Your task to perform on an android device: set an alarm Image 0: 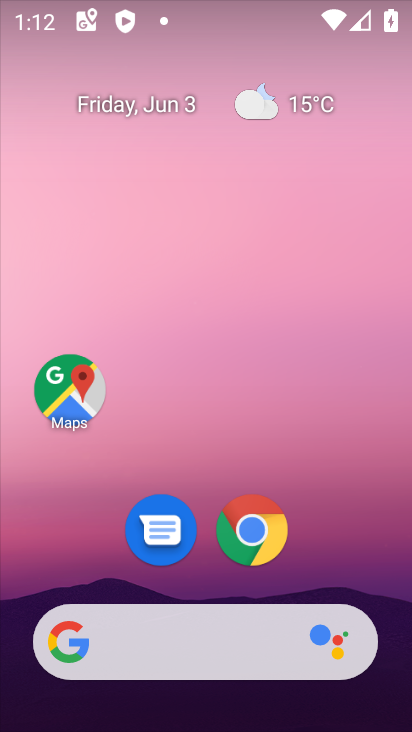
Step 0: drag from (354, 520) to (345, 81)
Your task to perform on an android device: set an alarm Image 1: 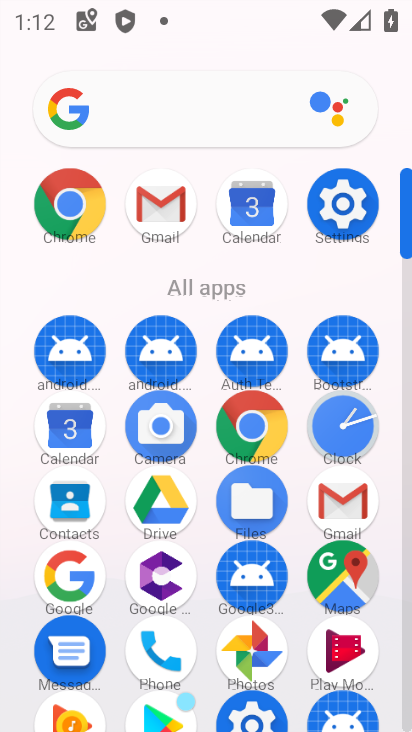
Step 1: click (348, 427)
Your task to perform on an android device: set an alarm Image 2: 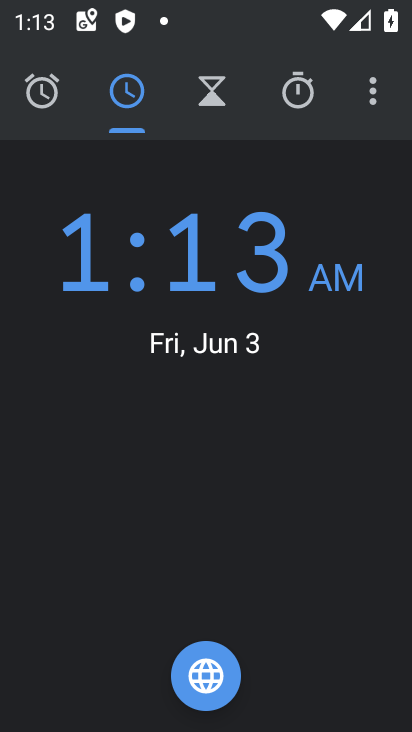
Step 2: click (42, 96)
Your task to perform on an android device: set an alarm Image 3: 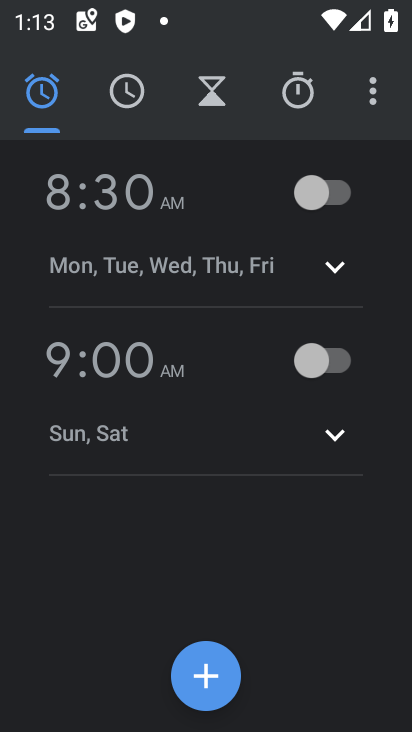
Step 3: click (318, 193)
Your task to perform on an android device: set an alarm Image 4: 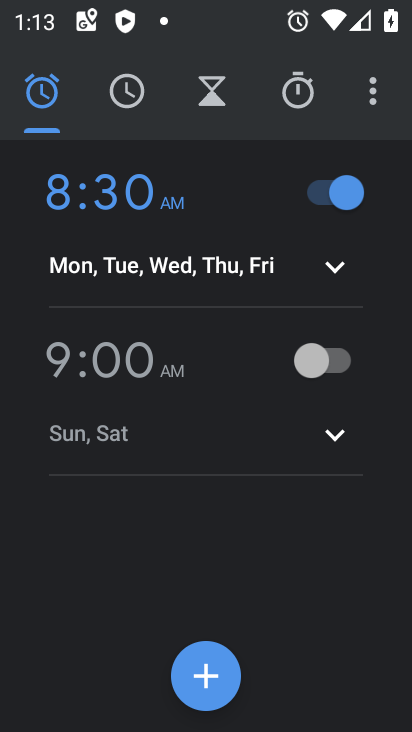
Step 4: task complete